Your task to perform on an android device: Open notification settings Image 0: 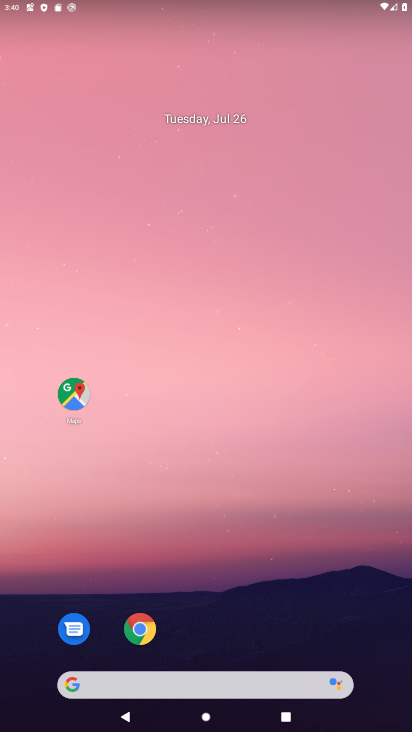
Step 0: drag from (263, 638) to (212, 286)
Your task to perform on an android device: Open notification settings Image 1: 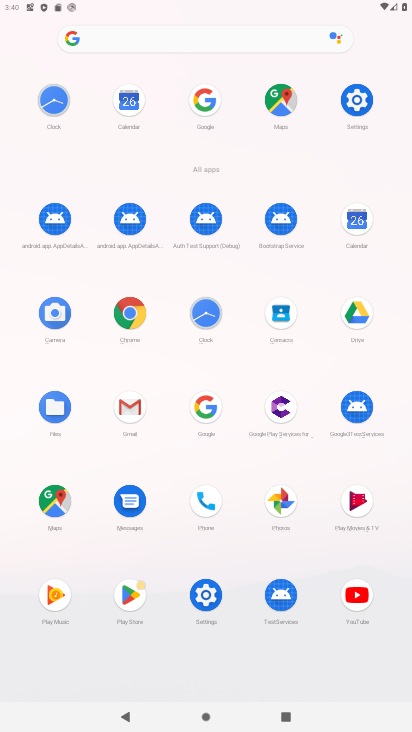
Step 1: click (199, 600)
Your task to perform on an android device: Open notification settings Image 2: 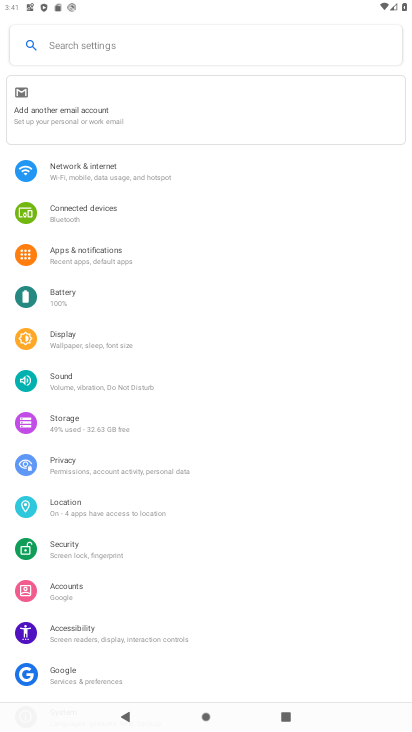
Step 2: click (130, 252)
Your task to perform on an android device: Open notification settings Image 3: 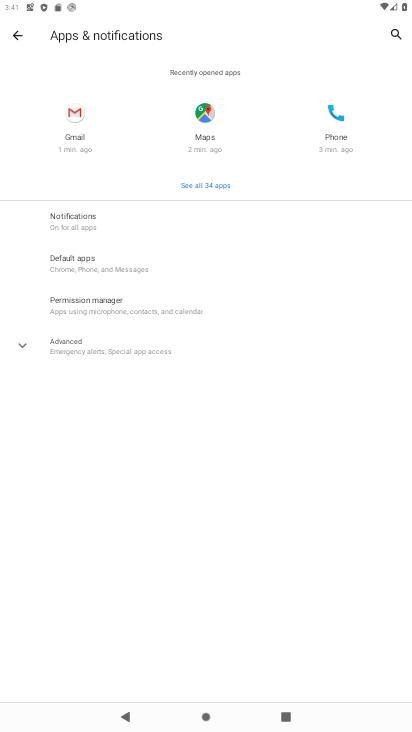
Step 3: click (166, 209)
Your task to perform on an android device: Open notification settings Image 4: 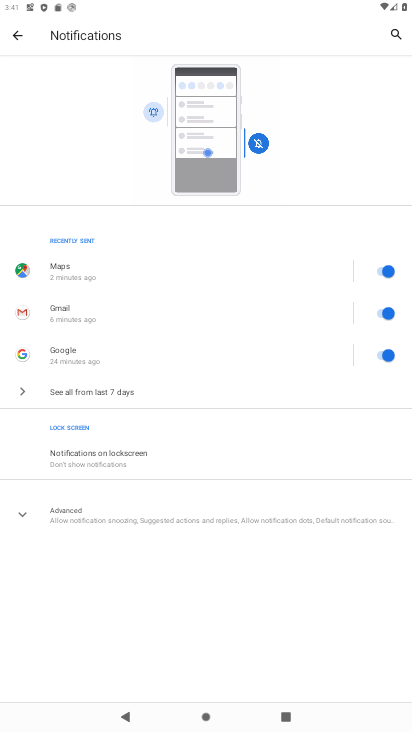
Step 4: task complete